Your task to perform on an android device: Open accessibility settings Image 0: 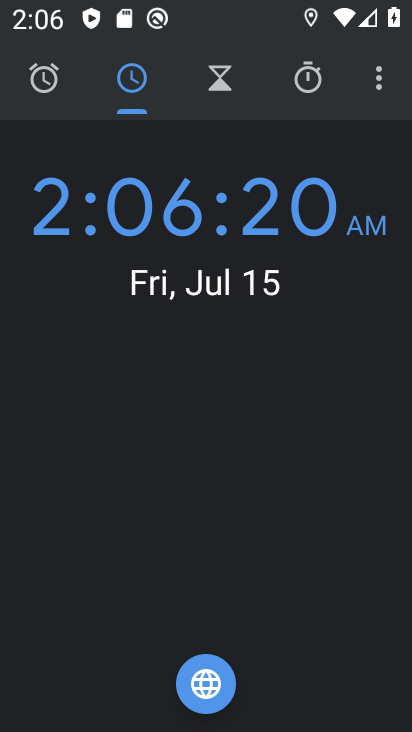
Step 0: press home button
Your task to perform on an android device: Open accessibility settings Image 1: 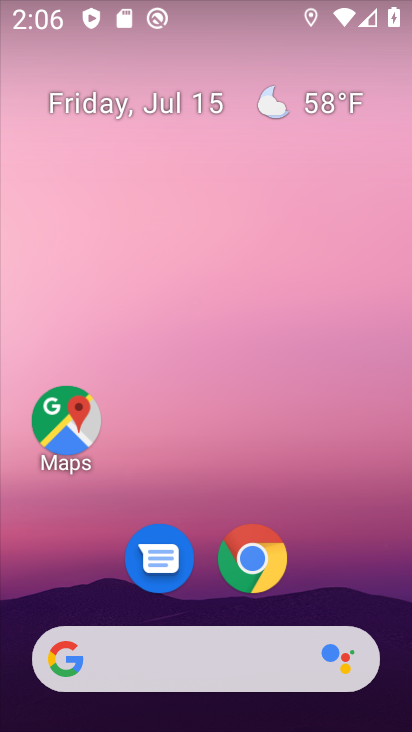
Step 1: drag from (372, 557) to (351, 246)
Your task to perform on an android device: Open accessibility settings Image 2: 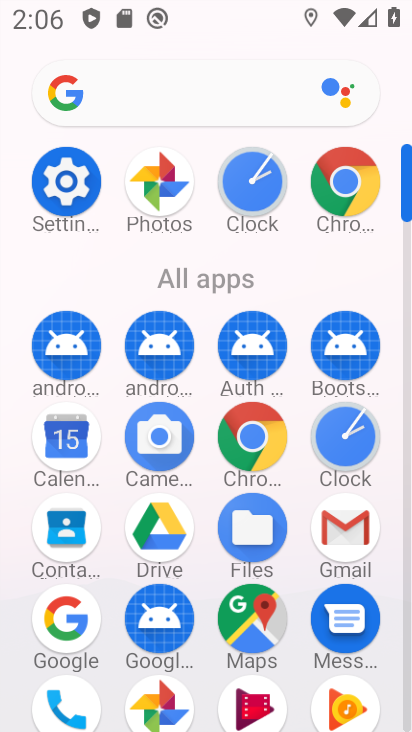
Step 2: click (69, 190)
Your task to perform on an android device: Open accessibility settings Image 3: 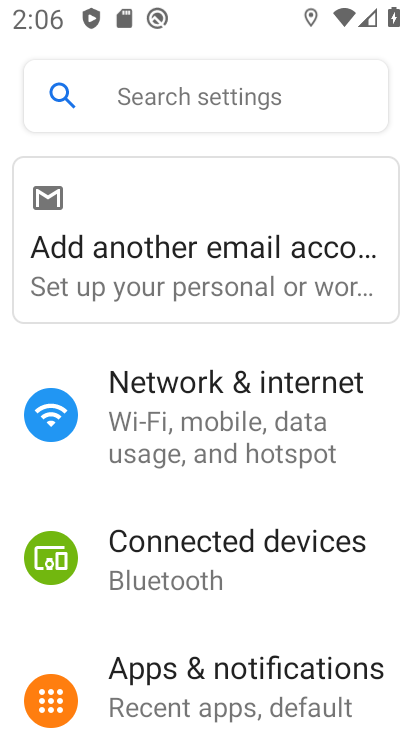
Step 3: drag from (368, 470) to (371, 397)
Your task to perform on an android device: Open accessibility settings Image 4: 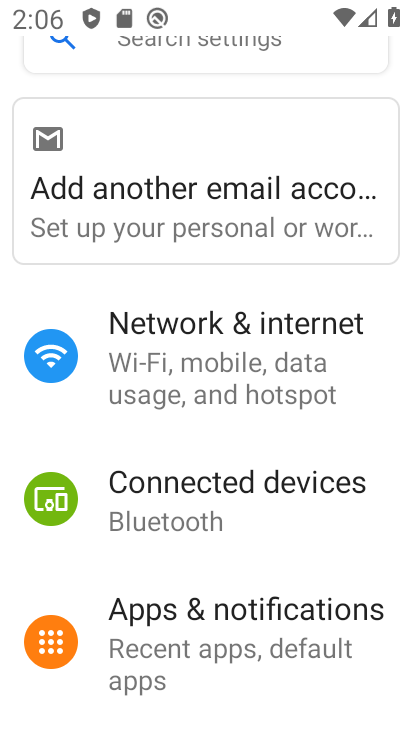
Step 4: drag from (378, 511) to (378, 425)
Your task to perform on an android device: Open accessibility settings Image 5: 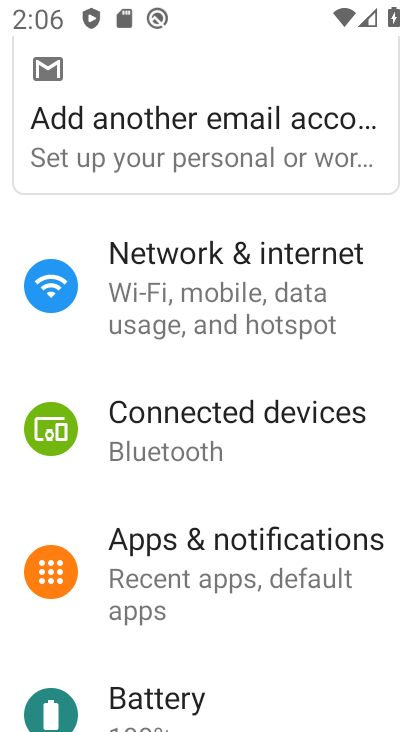
Step 5: drag from (372, 503) to (372, 416)
Your task to perform on an android device: Open accessibility settings Image 6: 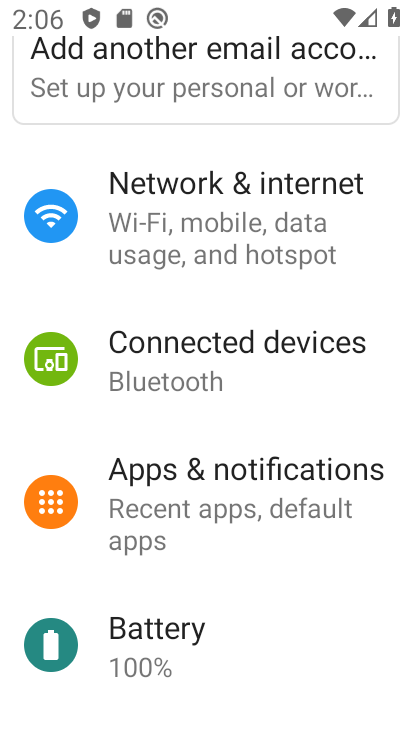
Step 6: drag from (369, 514) to (365, 414)
Your task to perform on an android device: Open accessibility settings Image 7: 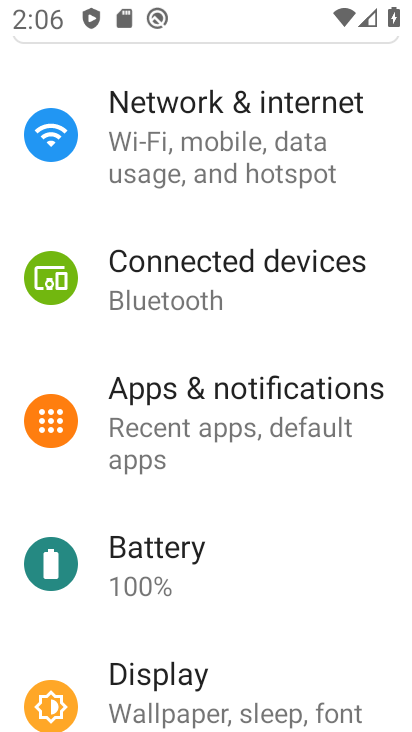
Step 7: drag from (344, 504) to (344, 402)
Your task to perform on an android device: Open accessibility settings Image 8: 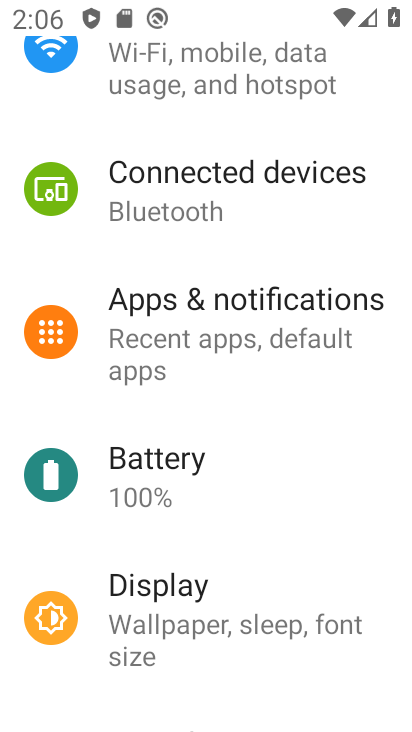
Step 8: drag from (331, 513) to (332, 401)
Your task to perform on an android device: Open accessibility settings Image 9: 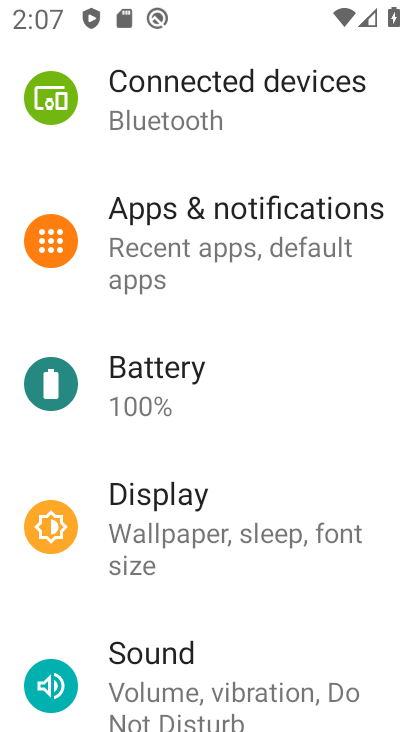
Step 9: drag from (341, 551) to (346, 448)
Your task to perform on an android device: Open accessibility settings Image 10: 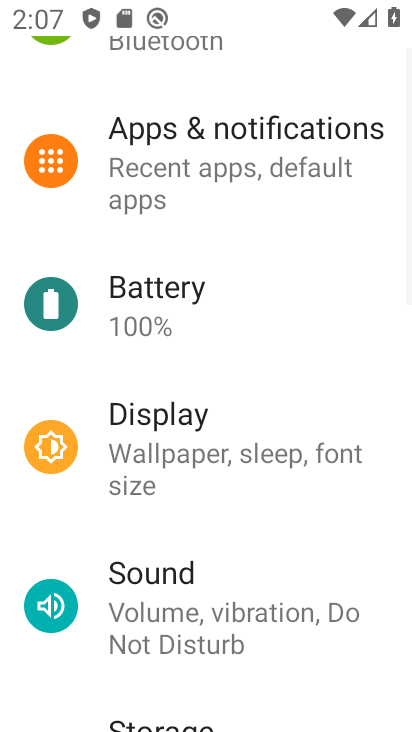
Step 10: drag from (351, 537) to (350, 442)
Your task to perform on an android device: Open accessibility settings Image 11: 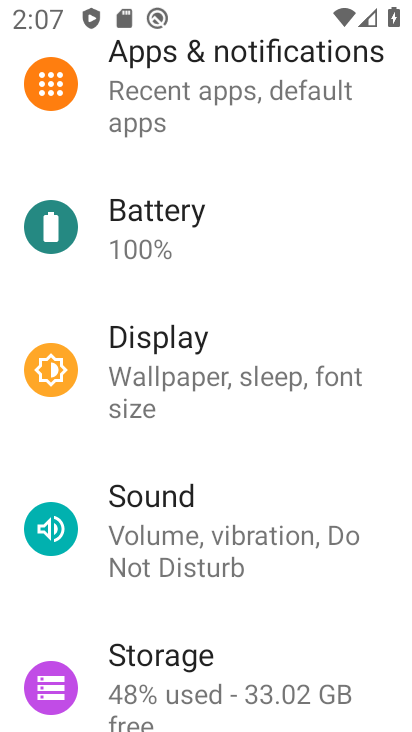
Step 11: drag from (345, 564) to (344, 445)
Your task to perform on an android device: Open accessibility settings Image 12: 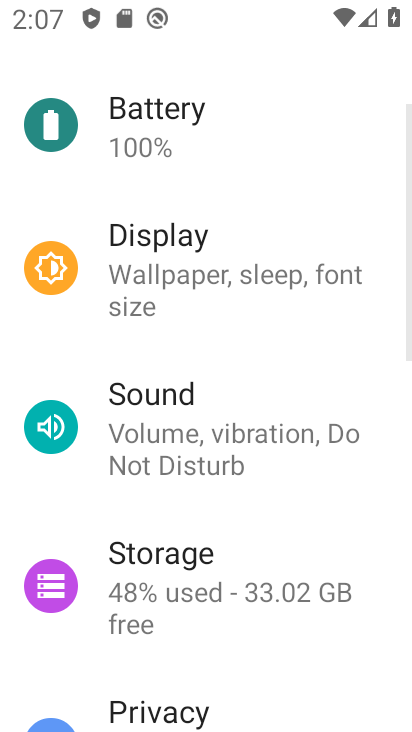
Step 12: drag from (355, 541) to (360, 395)
Your task to perform on an android device: Open accessibility settings Image 13: 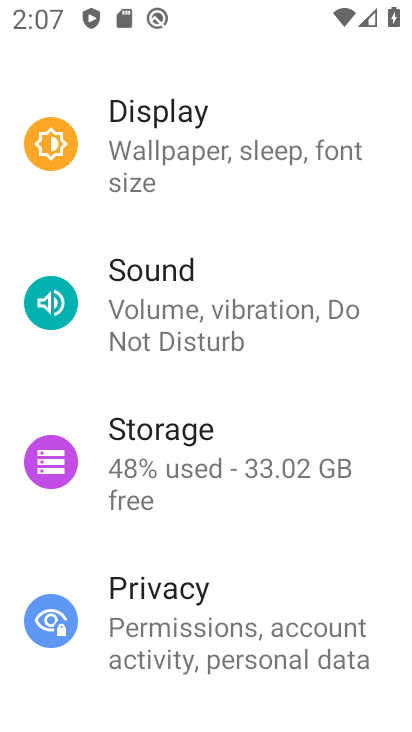
Step 13: drag from (350, 545) to (365, 345)
Your task to perform on an android device: Open accessibility settings Image 14: 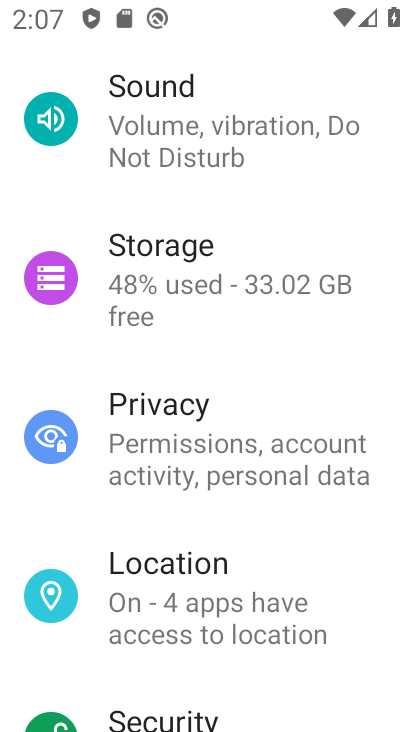
Step 14: drag from (362, 565) to (365, 408)
Your task to perform on an android device: Open accessibility settings Image 15: 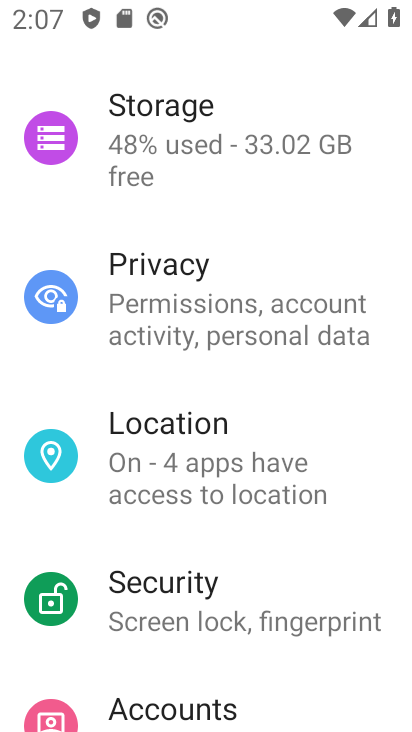
Step 15: drag from (355, 646) to (355, 486)
Your task to perform on an android device: Open accessibility settings Image 16: 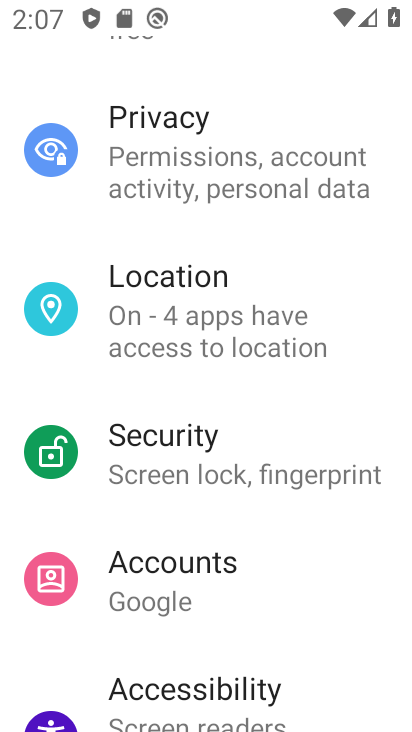
Step 16: drag from (355, 624) to (354, 481)
Your task to perform on an android device: Open accessibility settings Image 17: 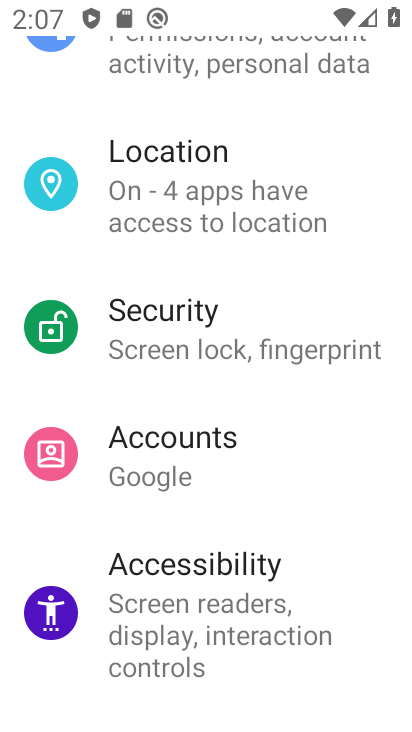
Step 17: click (348, 595)
Your task to perform on an android device: Open accessibility settings Image 18: 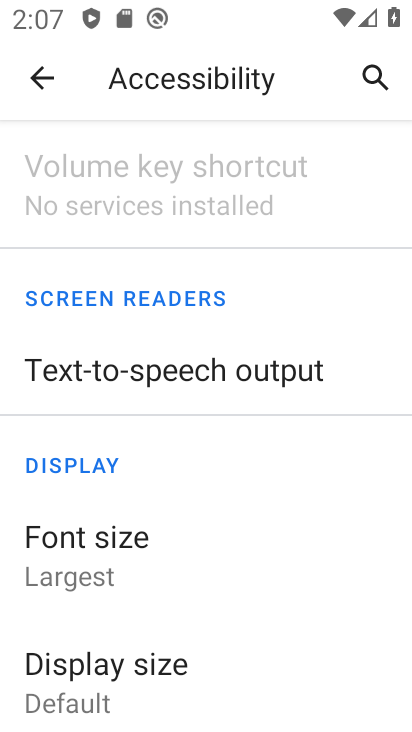
Step 18: task complete